Your task to perform on an android device: turn on notifications settings in the gmail app Image 0: 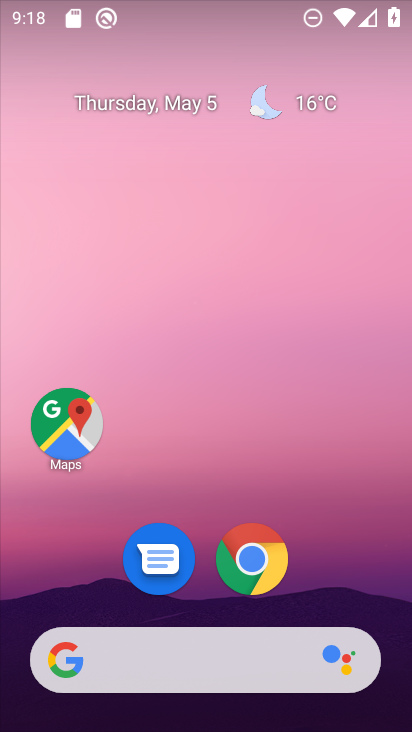
Step 0: drag from (364, 603) to (340, 2)
Your task to perform on an android device: turn on notifications settings in the gmail app Image 1: 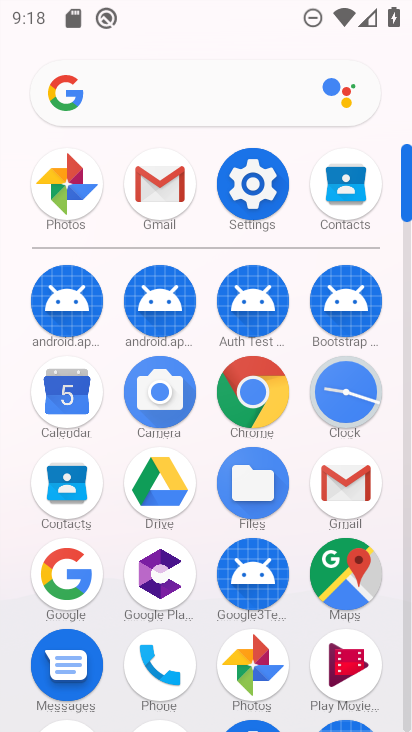
Step 1: click (158, 193)
Your task to perform on an android device: turn on notifications settings in the gmail app Image 2: 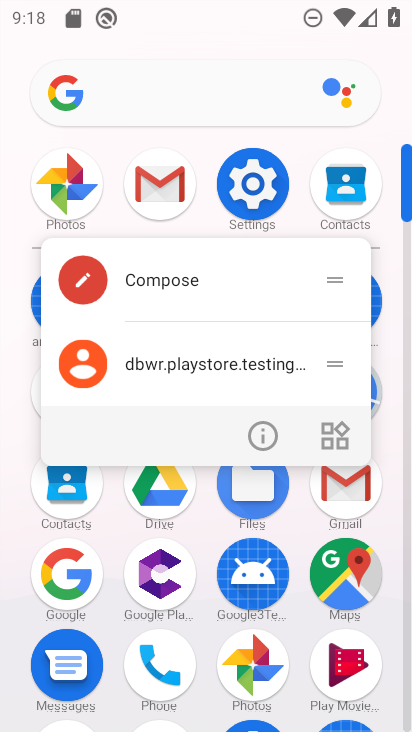
Step 2: click (150, 194)
Your task to perform on an android device: turn on notifications settings in the gmail app Image 3: 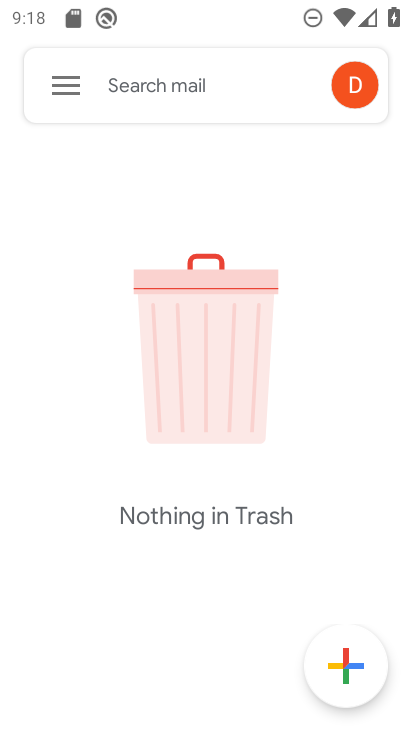
Step 3: click (73, 88)
Your task to perform on an android device: turn on notifications settings in the gmail app Image 4: 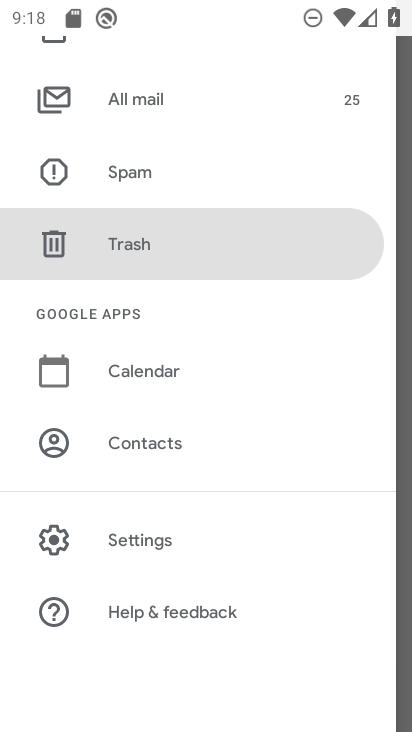
Step 4: click (129, 548)
Your task to perform on an android device: turn on notifications settings in the gmail app Image 5: 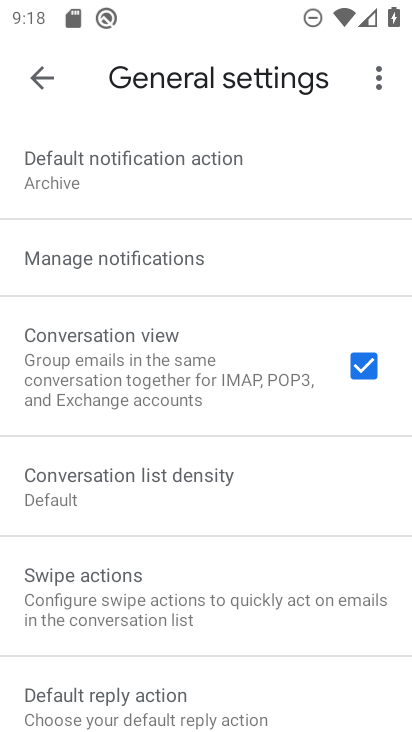
Step 5: click (97, 261)
Your task to perform on an android device: turn on notifications settings in the gmail app Image 6: 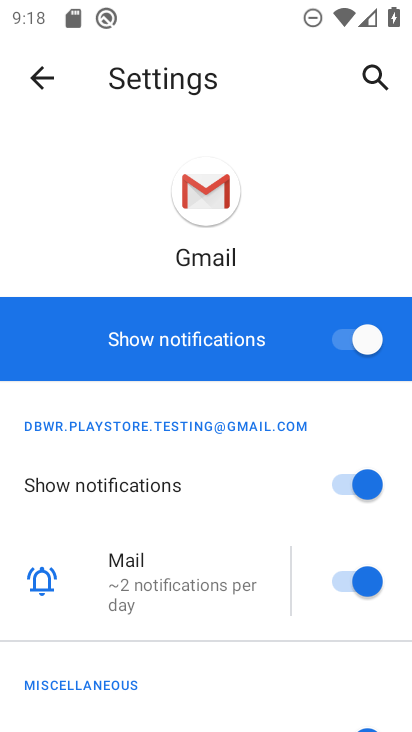
Step 6: task complete